Your task to perform on an android device: Search for sushi restaurants on Maps Image 0: 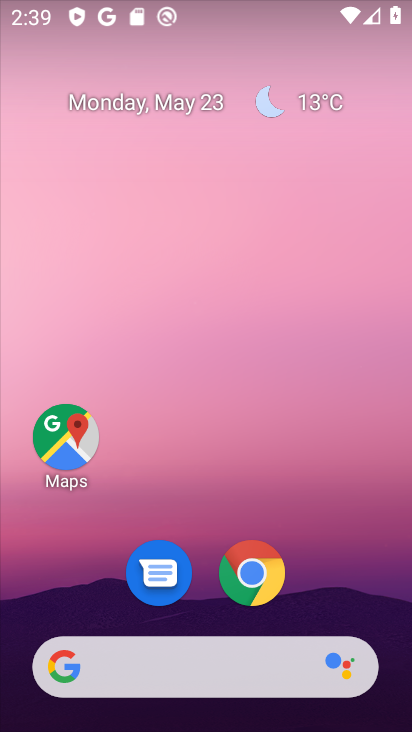
Step 0: click (62, 438)
Your task to perform on an android device: Search for sushi restaurants on Maps Image 1: 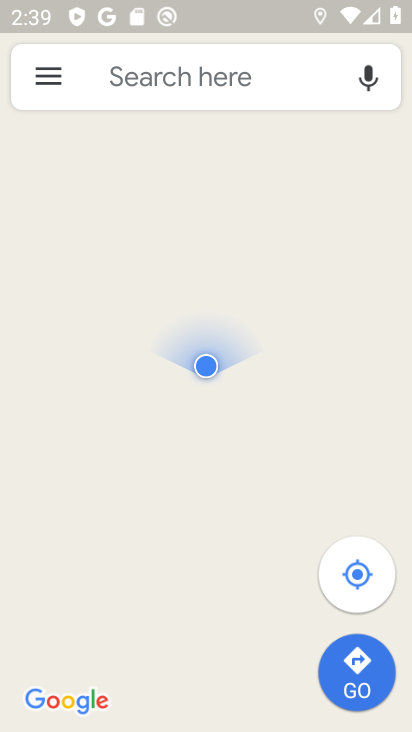
Step 1: click (115, 84)
Your task to perform on an android device: Search for sushi restaurants on Maps Image 2: 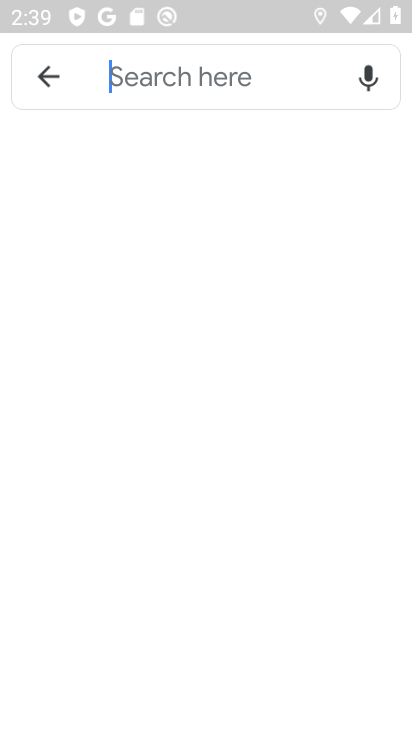
Step 2: click (115, 84)
Your task to perform on an android device: Search for sushi restaurants on Maps Image 3: 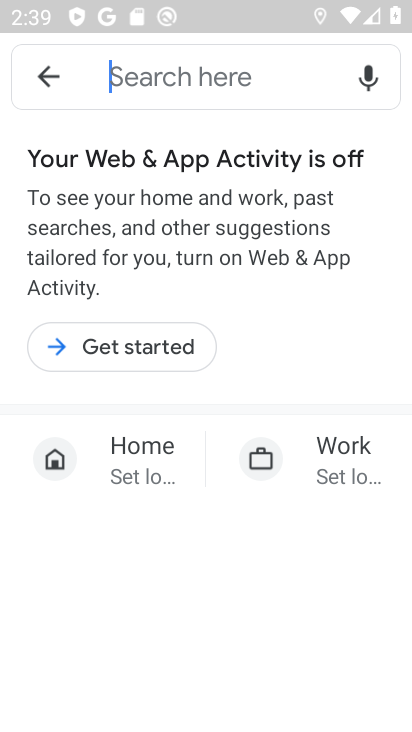
Step 3: click (115, 84)
Your task to perform on an android device: Search for sushi restaurants on Maps Image 4: 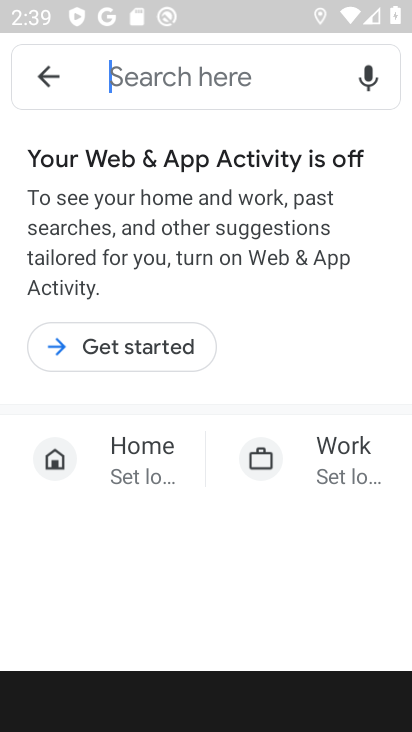
Step 4: click (115, 84)
Your task to perform on an android device: Search for sushi restaurants on Maps Image 5: 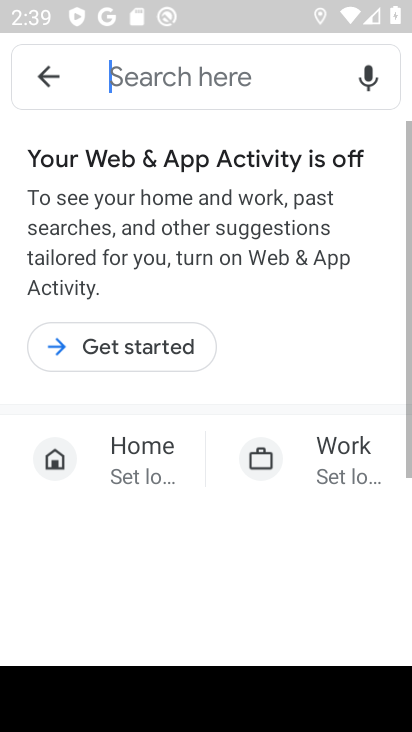
Step 5: click (115, 84)
Your task to perform on an android device: Search for sushi restaurants on Maps Image 6: 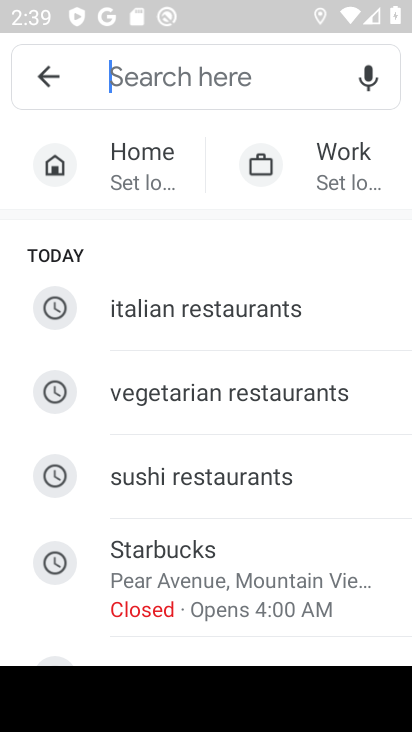
Step 6: type " sushi restaurants"
Your task to perform on an android device: Search for sushi restaurants on Maps Image 7: 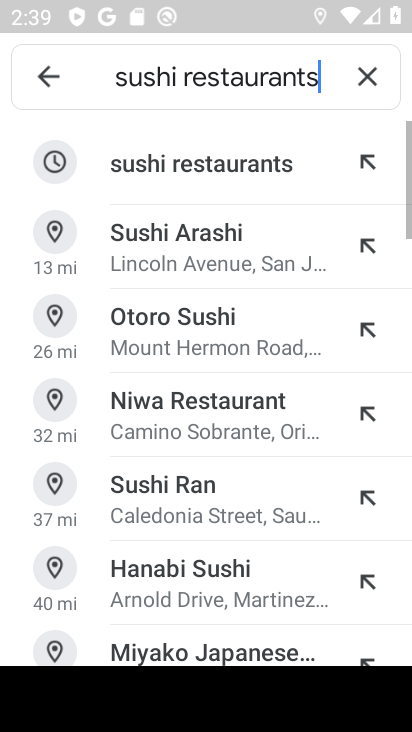
Step 7: click (142, 167)
Your task to perform on an android device: Search for sushi restaurants on Maps Image 8: 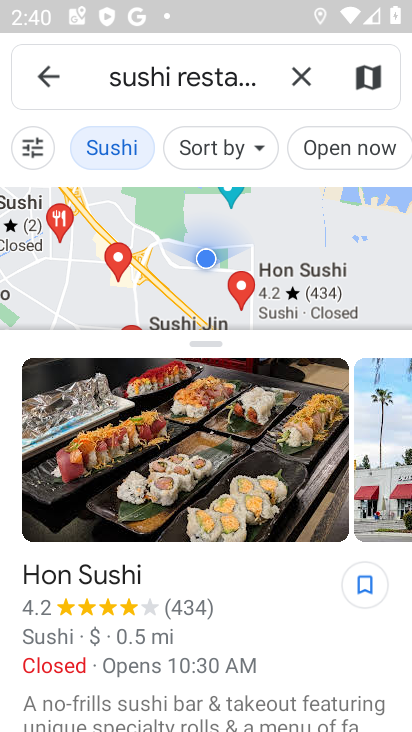
Step 8: task complete